Your task to perform on an android device: Play the latest video from the Washington Post Image 0: 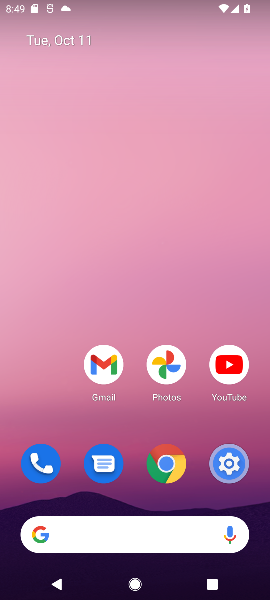
Step 0: drag from (123, 454) to (100, 98)
Your task to perform on an android device: Play the latest video from the Washington Post Image 1: 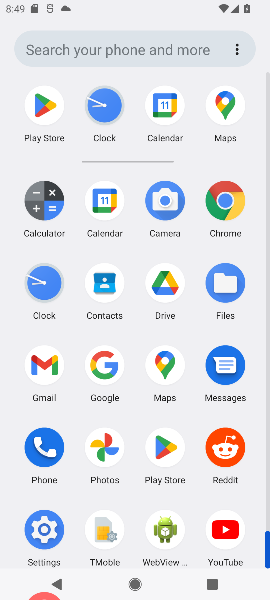
Step 1: click (102, 365)
Your task to perform on an android device: Play the latest video from the Washington Post Image 2: 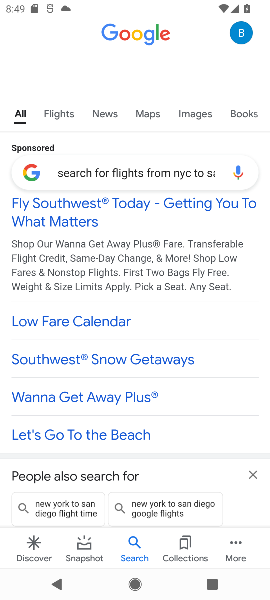
Step 2: click (120, 166)
Your task to perform on an android device: Play the latest video from the Washington Post Image 3: 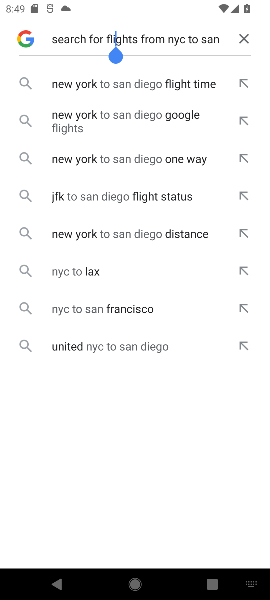
Step 3: click (239, 39)
Your task to perform on an android device: Play the latest video from the Washington Post Image 4: 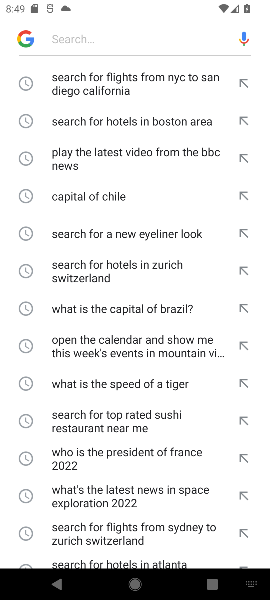
Step 4: click (111, 29)
Your task to perform on an android device: Play the latest video from the Washington Post Image 5: 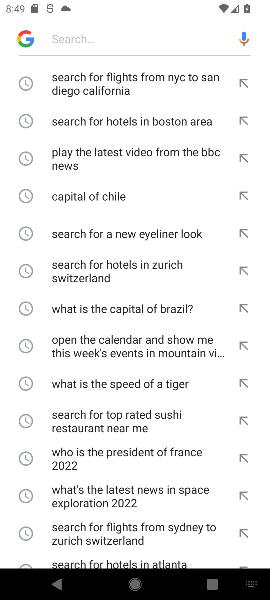
Step 5: type "Play the latest video from the Washington Post "
Your task to perform on an android device: Play the latest video from the Washington Post Image 6: 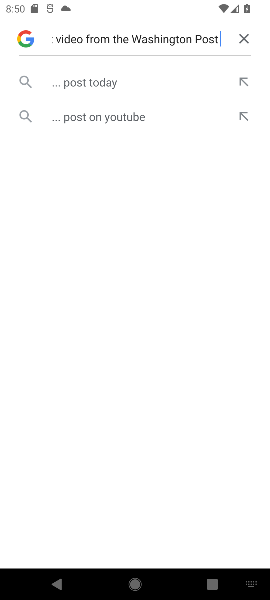
Step 6: click (108, 81)
Your task to perform on an android device: Play the latest video from the Washington Post Image 7: 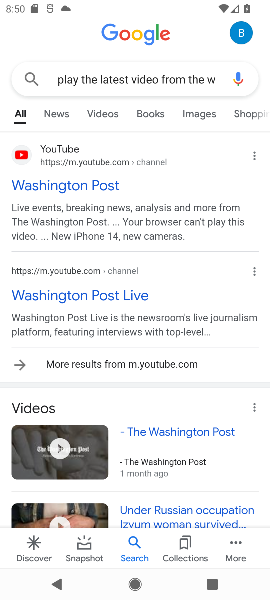
Step 7: task complete